Your task to perform on an android device: Go to CNN.com Image 0: 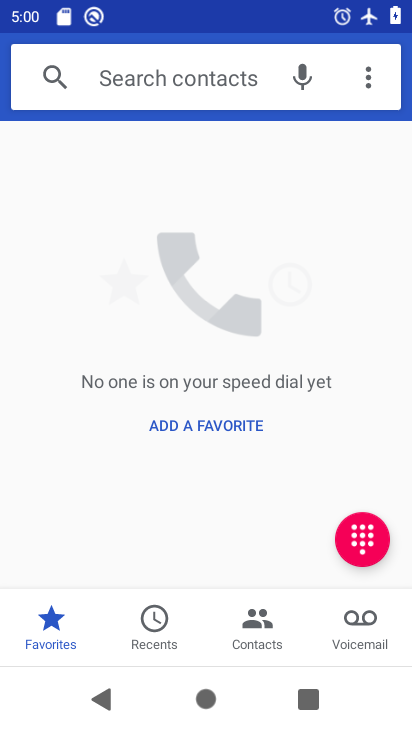
Step 0: press home button
Your task to perform on an android device: Go to CNN.com Image 1: 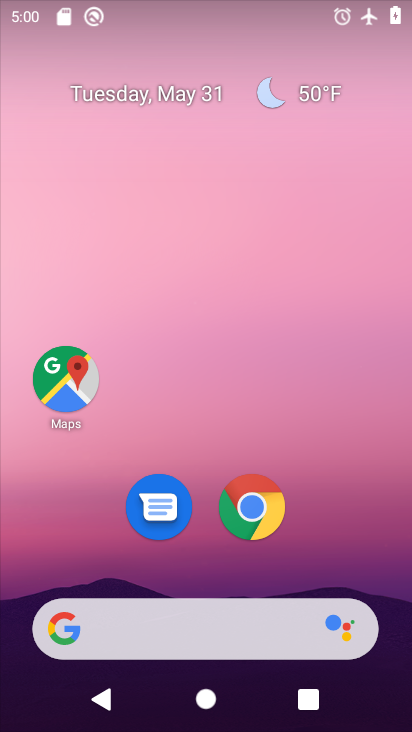
Step 1: click (201, 621)
Your task to perform on an android device: Go to CNN.com Image 2: 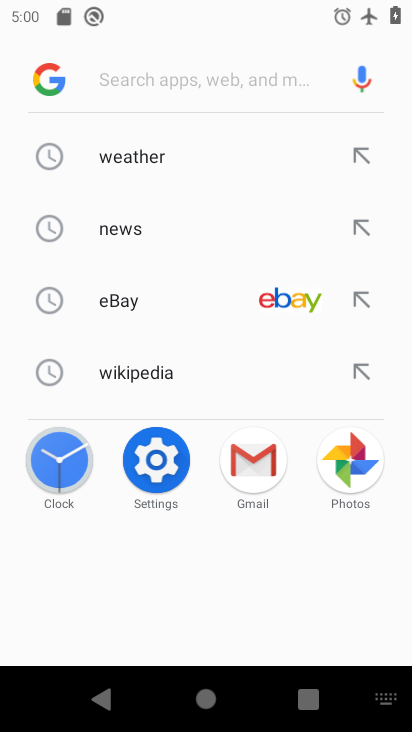
Step 2: type "cnn.com"
Your task to perform on an android device: Go to CNN.com Image 3: 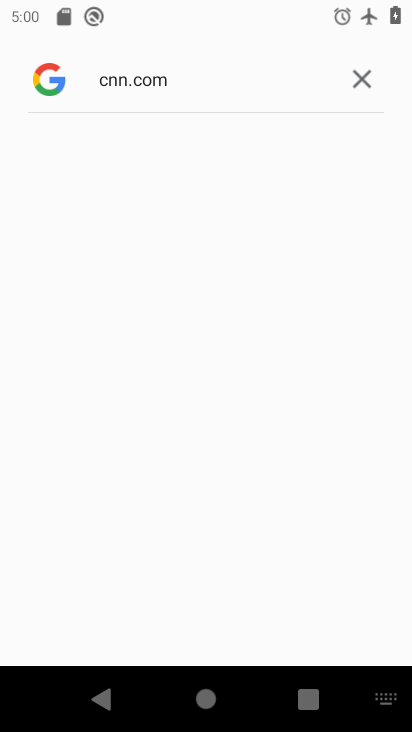
Step 3: task complete